Your task to perform on an android device: Open Google Maps and go to "Timeline" Image 0: 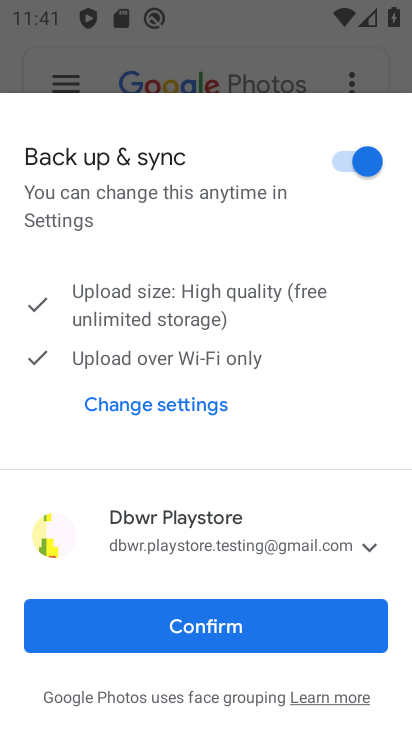
Step 0: press home button
Your task to perform on an android device: Open Google Maps and go to "Timeline" Image 1: 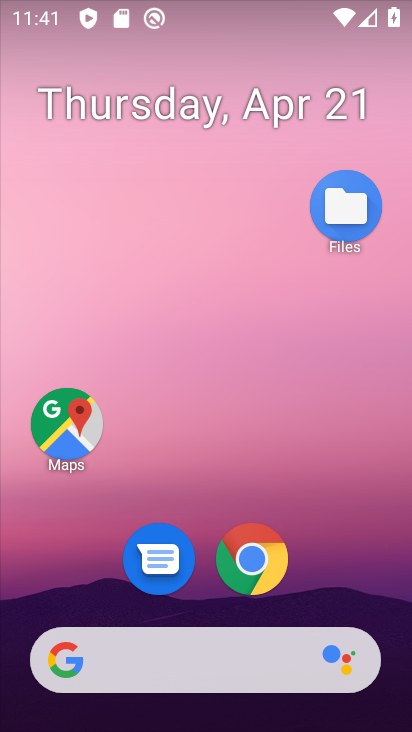
Step 1: click (69, 410)
Your task to perform on an android device: Open Google Maps and go to "Timeline" Image 2: 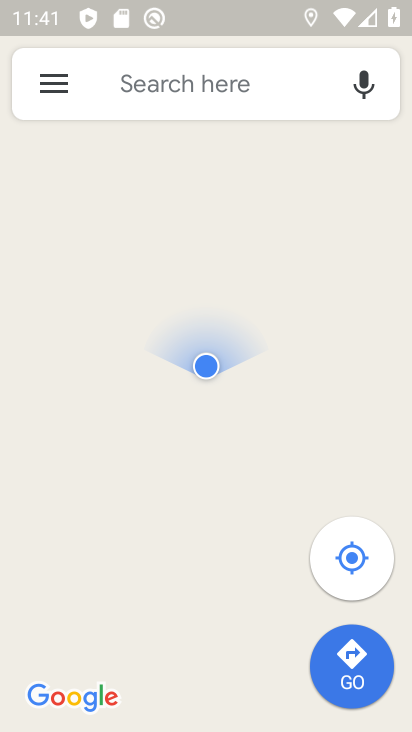
Step 2: click (48, 80)
Your task to perform on an android device: Open Google Maps and go to "Timeline" Image 3: 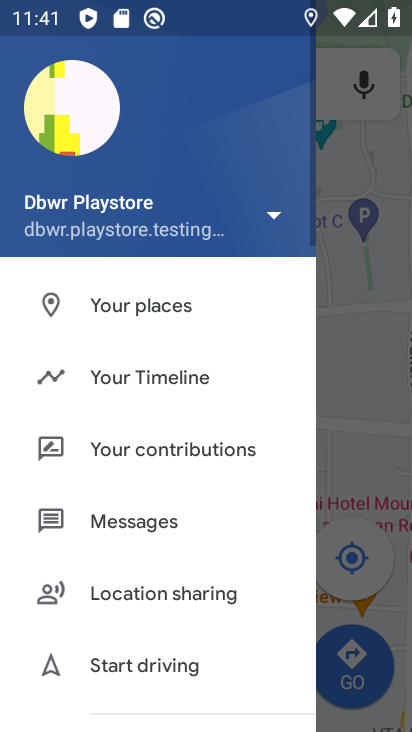
Step 3: click (179, 389)
Your task to perform on an android device: Open Google Maps and go to "Timeline" Image 4: 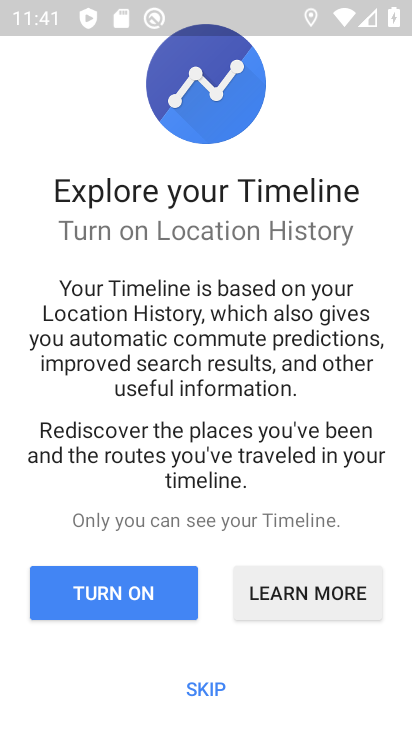
Step 4: task complete